Your task to perform on an android device: see tabs open on other devices in the chrome app Image 0: 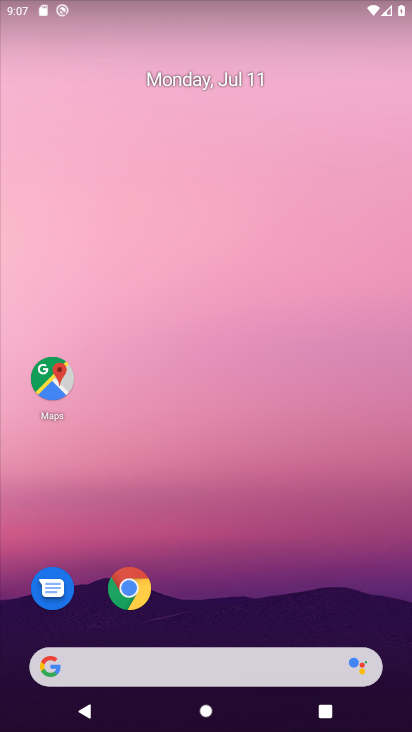
Step 0: drag from (193, 661) to (194, 37)
Your task to perform on an android device: see tabs open on other devices in the chrome app Image 1: 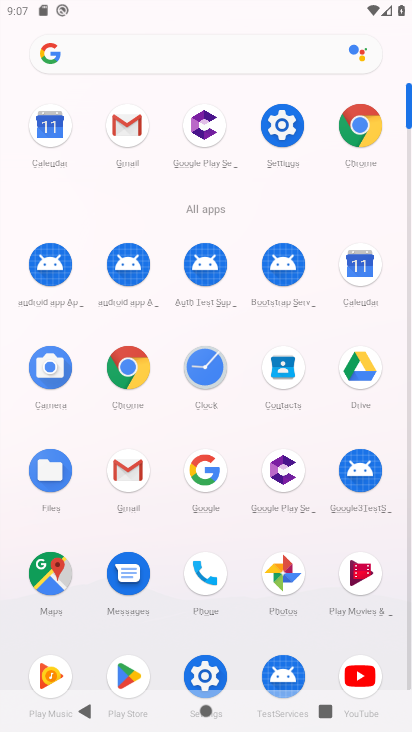
Step 1: click (122, 349)
Your task to perform on an android device: see tabs open on other devices in the chrome app Image 2: 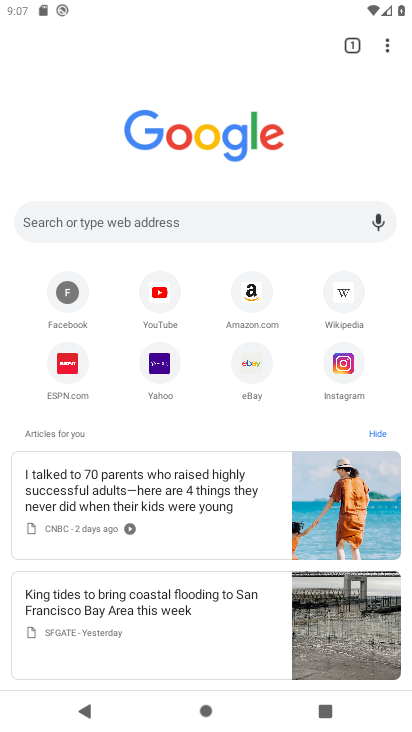
Step 2: click (391, 36)
Your task to perform on an android device: see tabs open on other devices in the chrome app Image 3: 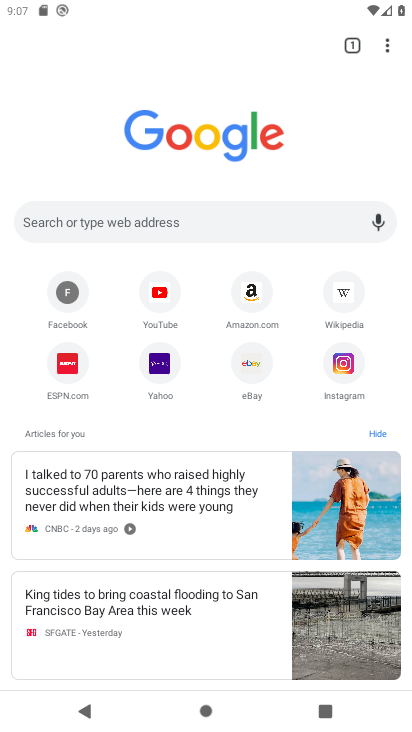
Step 3: click (391, 36)
Your task to perform on an android device: see tabs open on other devices in the chrome app Image 4: 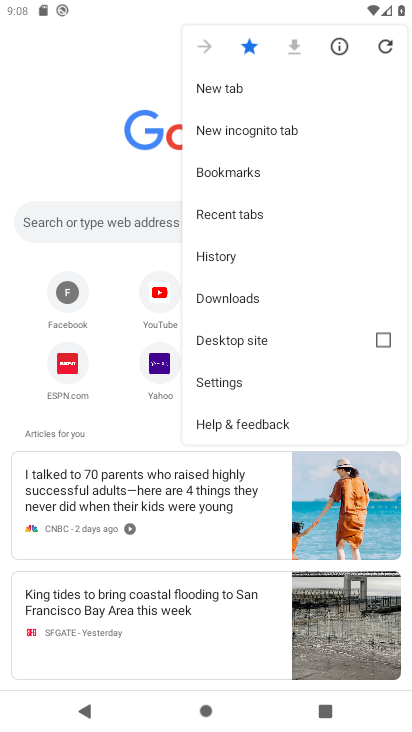
Step 4: click (223, 250)
Your task to perform on an android device: see tabs open on other devices in the chrome app Image 5: 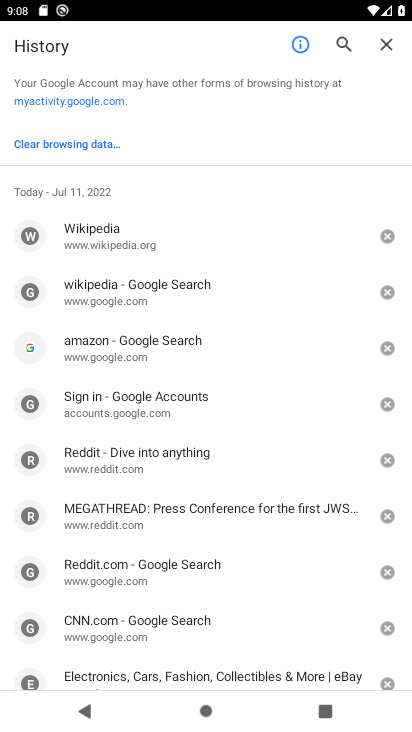
Step 5: task complete